Your task to perform on an android device: open app "Facebook" (install if not already installed) Image 0: 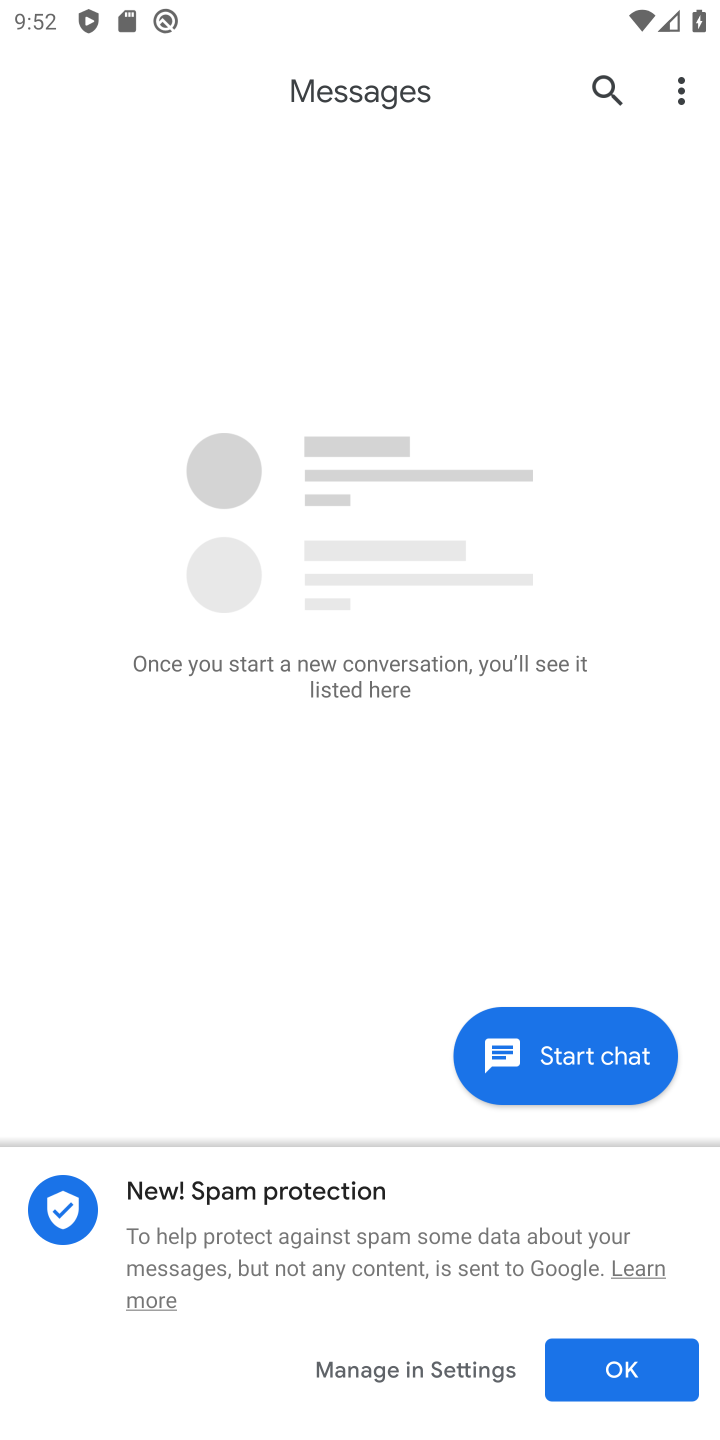
Step 0: press home button
Your task to perform on an android device: open app "Facebook" (install if not already installed) Image 1: 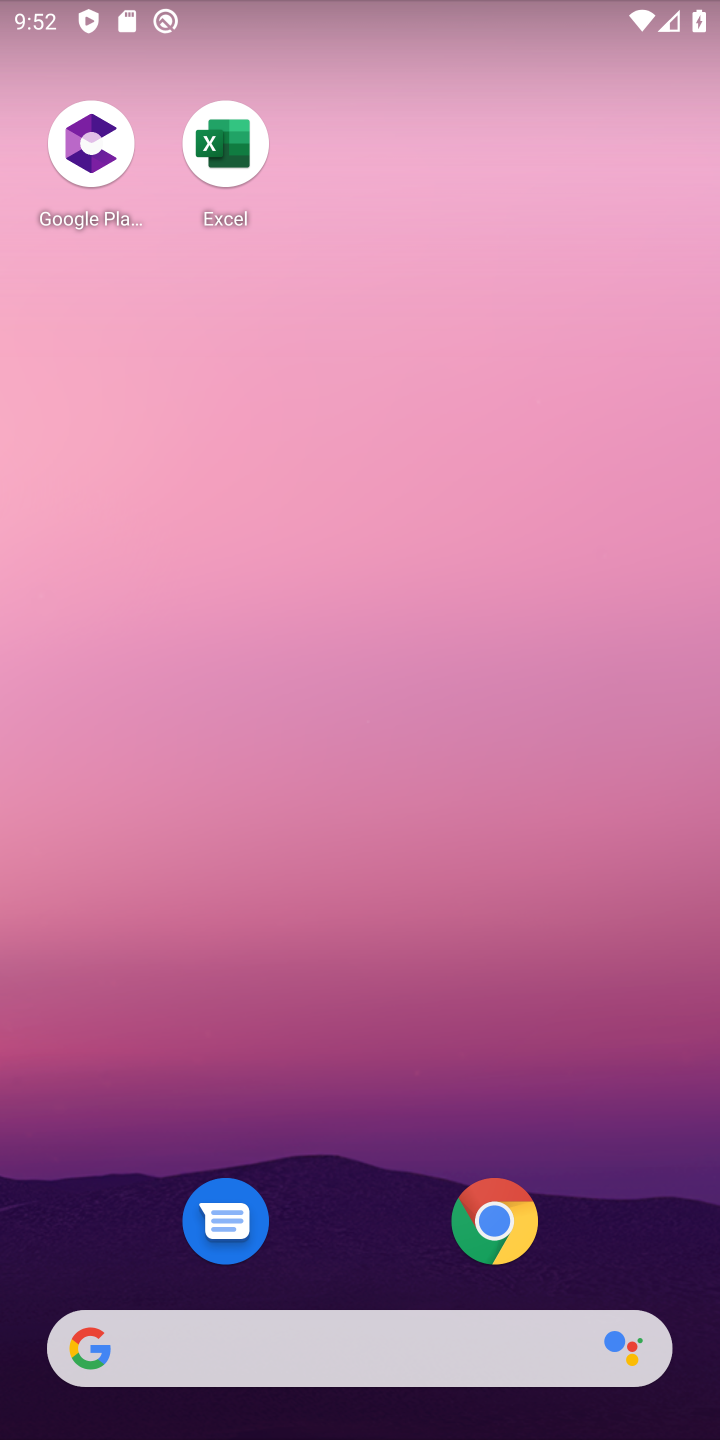
Step 1: drag from (338, 1141) to (310, 547)
Your task to perform on an android device: open app "Facebook" (install if not already installed) Image 2: 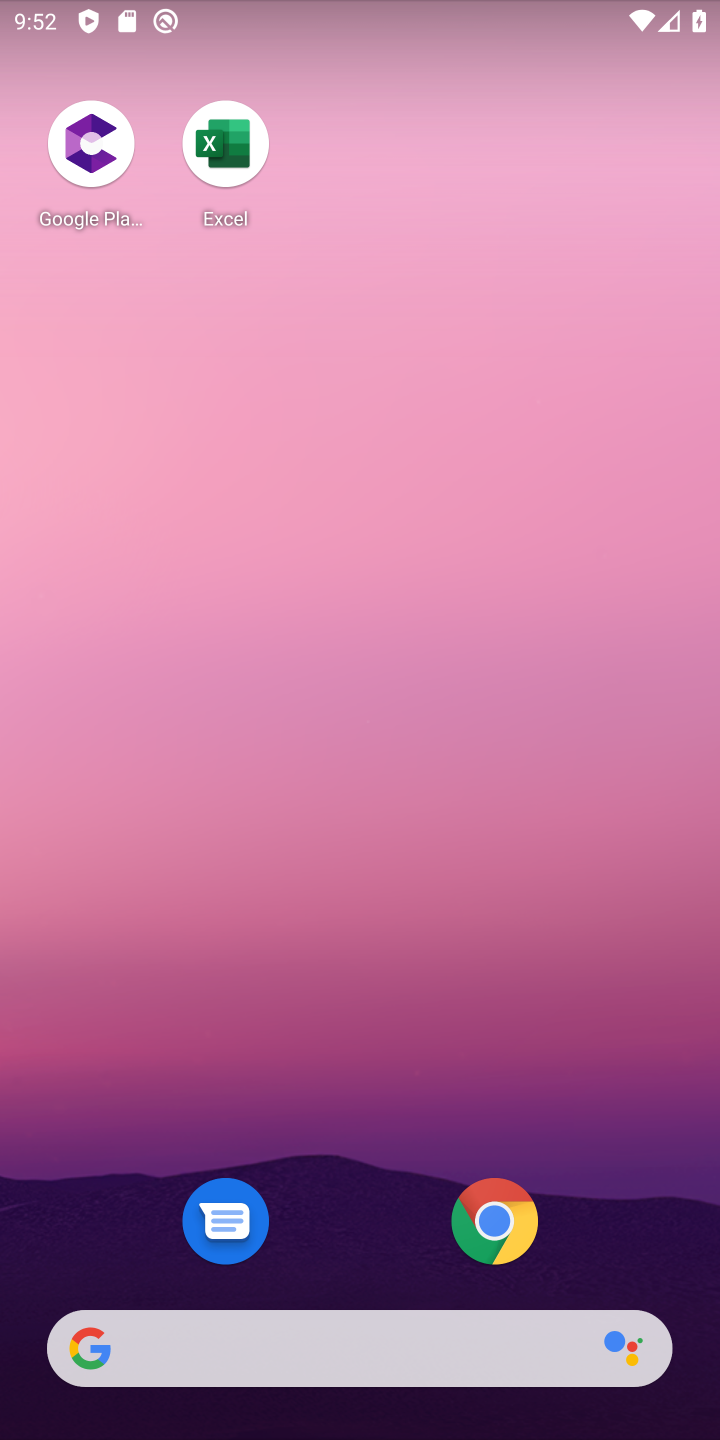
Step 2: drag from (310, 736) to (310, 547)
Your task to perform on an android device: open app "Facebook" (install if not already installed) Image 3: 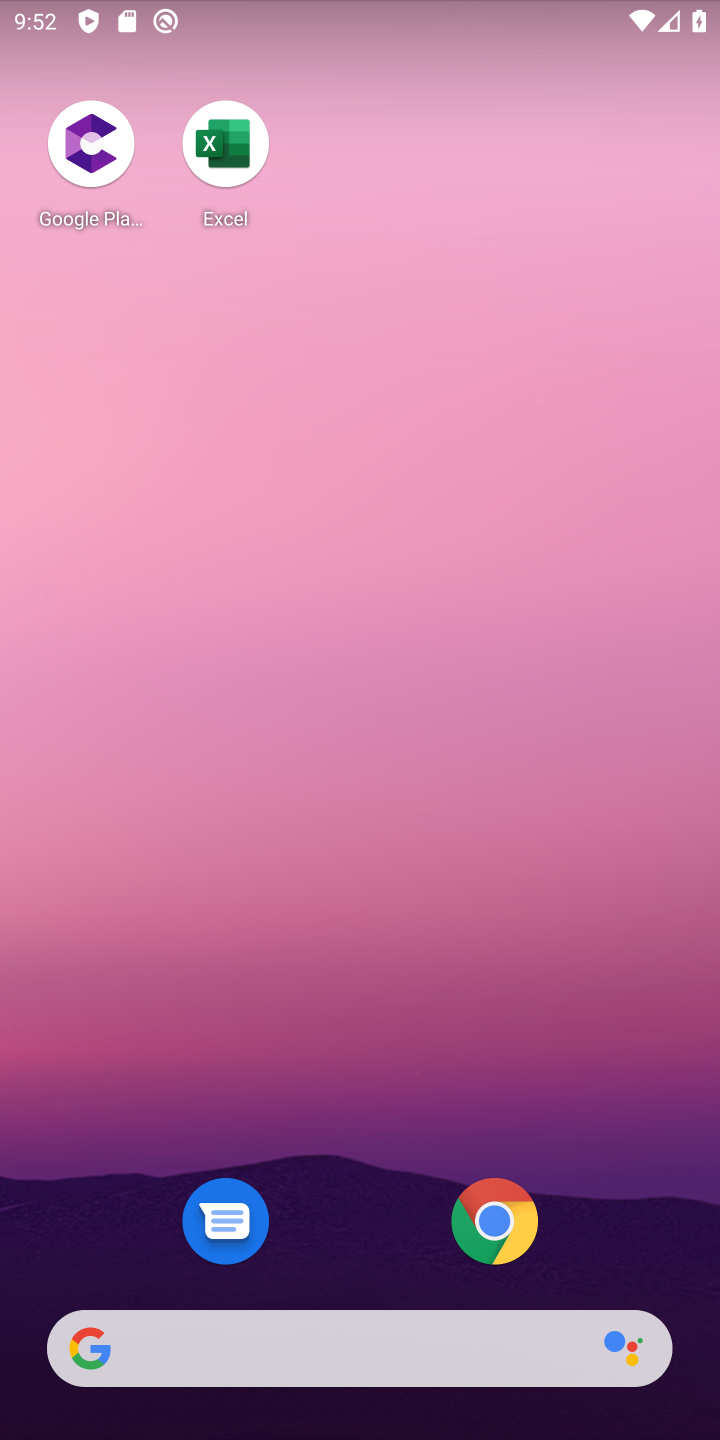
Step 3: drag from (383, 1303) to (378, 444)
Your task to perform on an android device: open app "Facebook" (install if not already installed) Image 4: 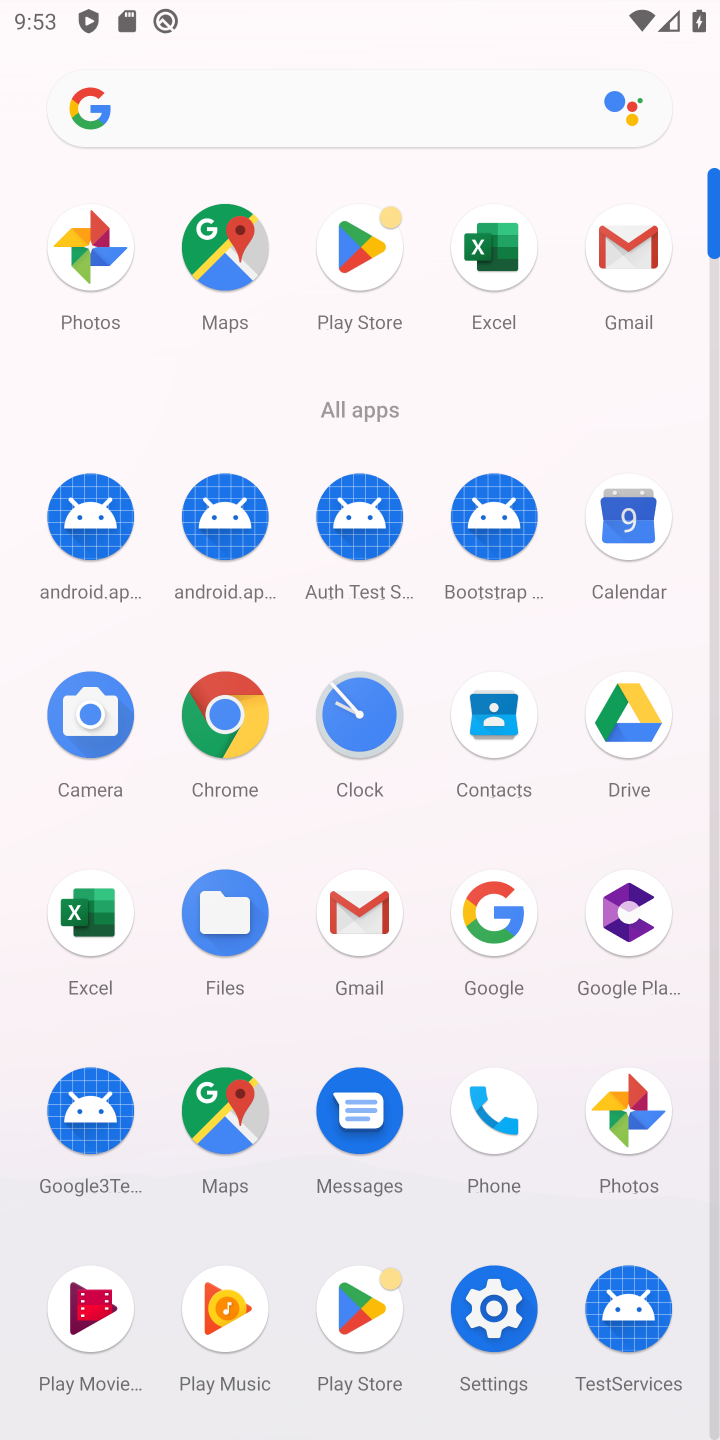
Step 4: click (360, 1317)
Your task to perform on an android device: open app "Facebook" (install if not already installed) Image 5: 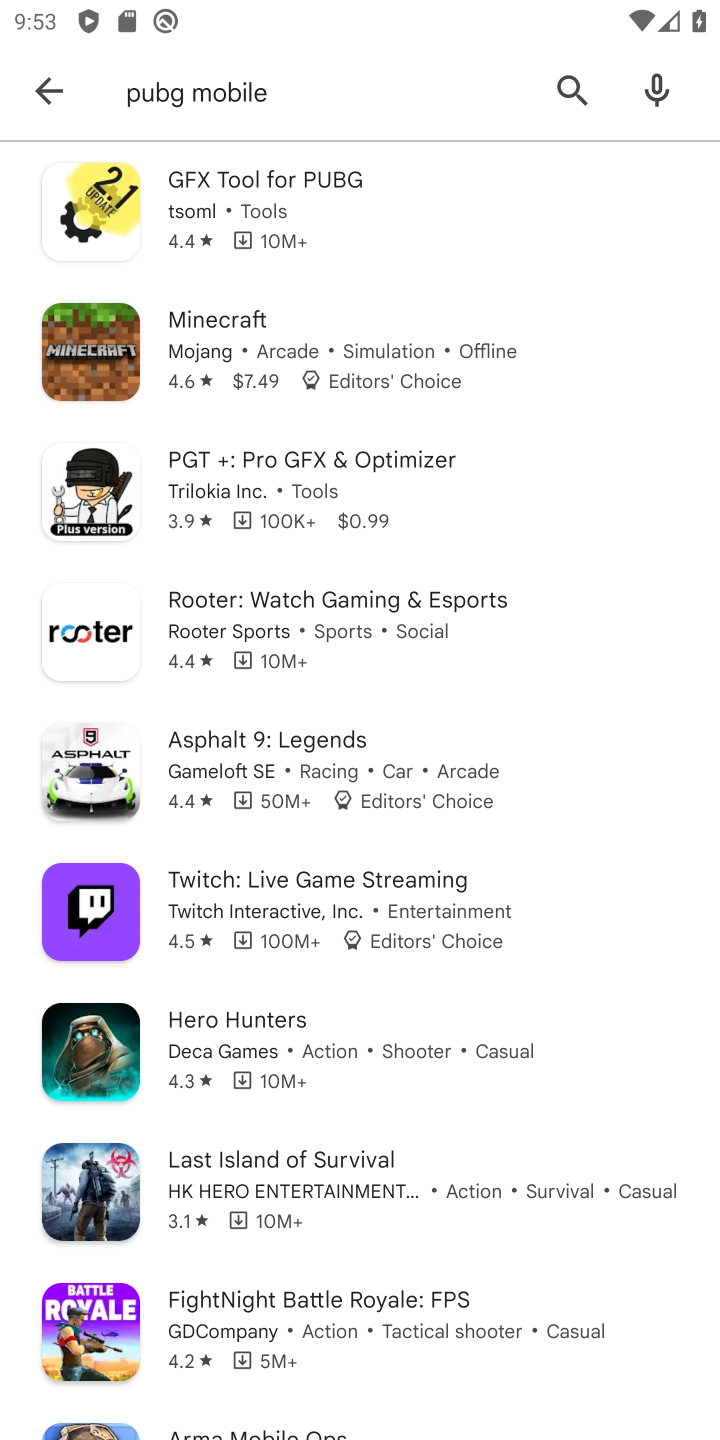
Step 5: click (586, 93)
Your task to perform on an android device: open app "Facebook" (install if not already installed) Image 6: 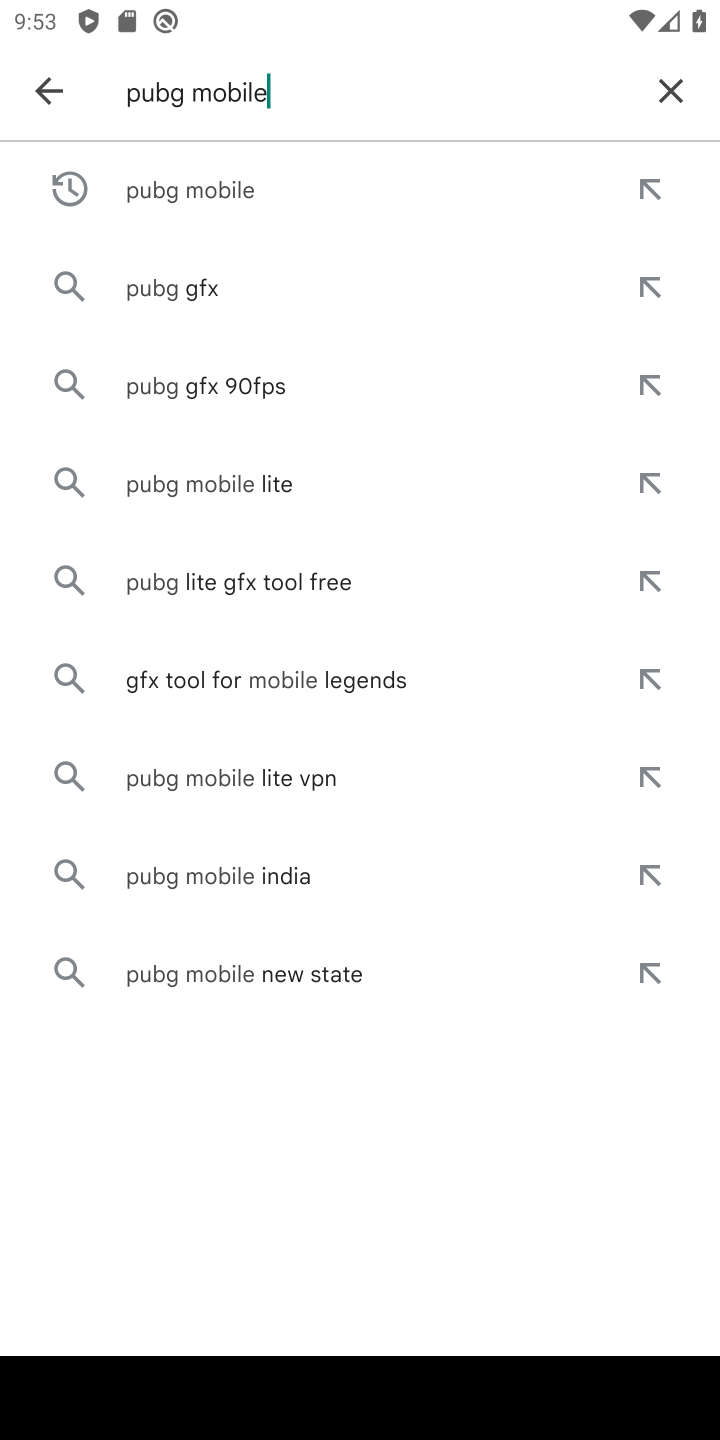
Step 6: click (682, 91)
Your task to perform on an android device: open app "Facebook" (install if not already installed) Image 7: 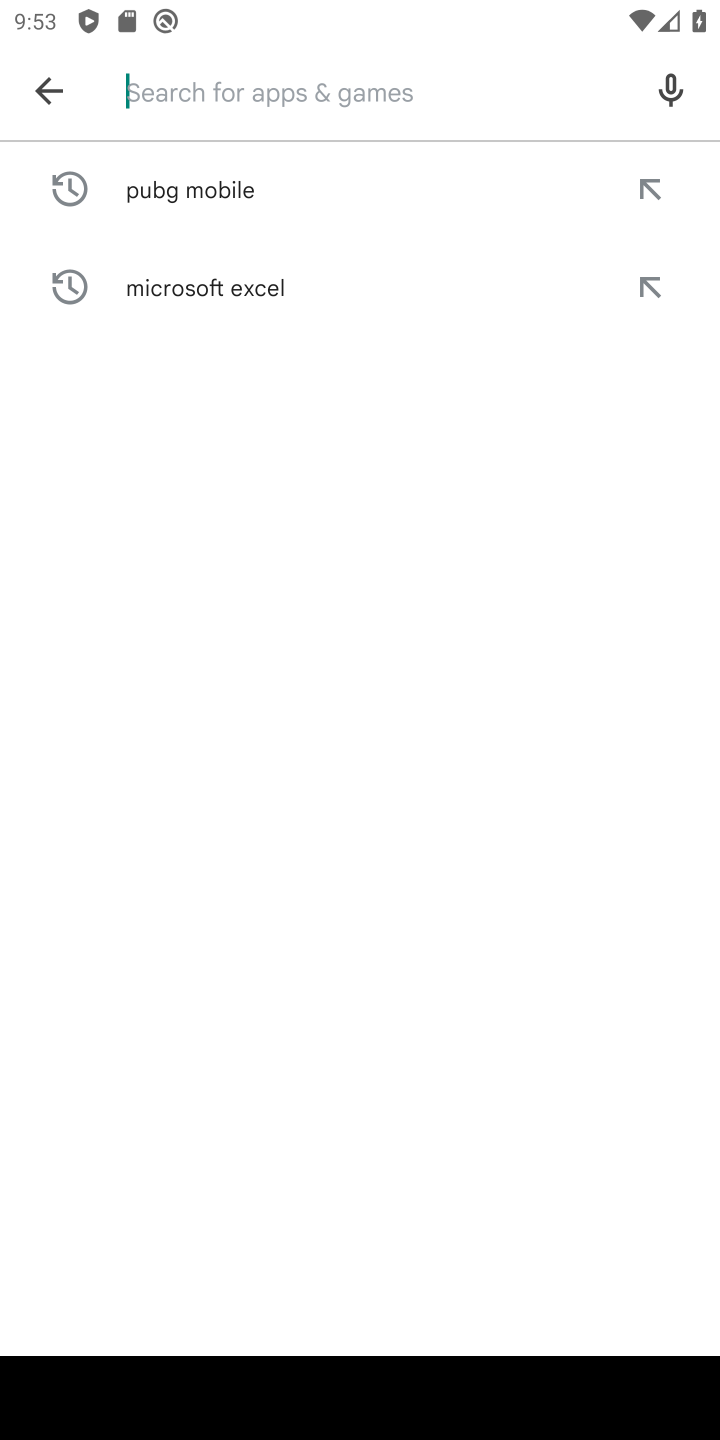
Step 7: click (202, 98)
Your task to perform on an android device: open app "Facebook" (install if not already installed) Image 8: 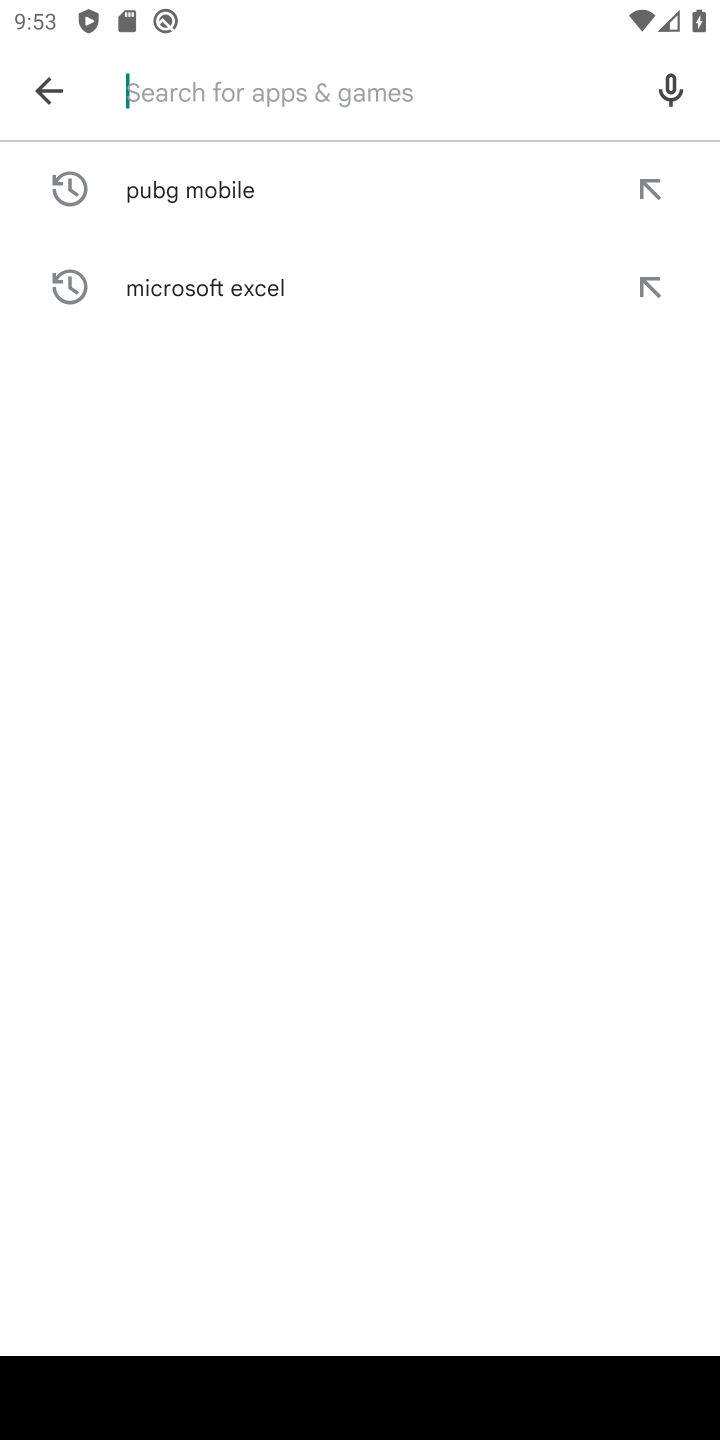
Step 8: click (150, 79)
Your task to perform on an android device: open app "Facebook" (install if not already installed) Image 9: 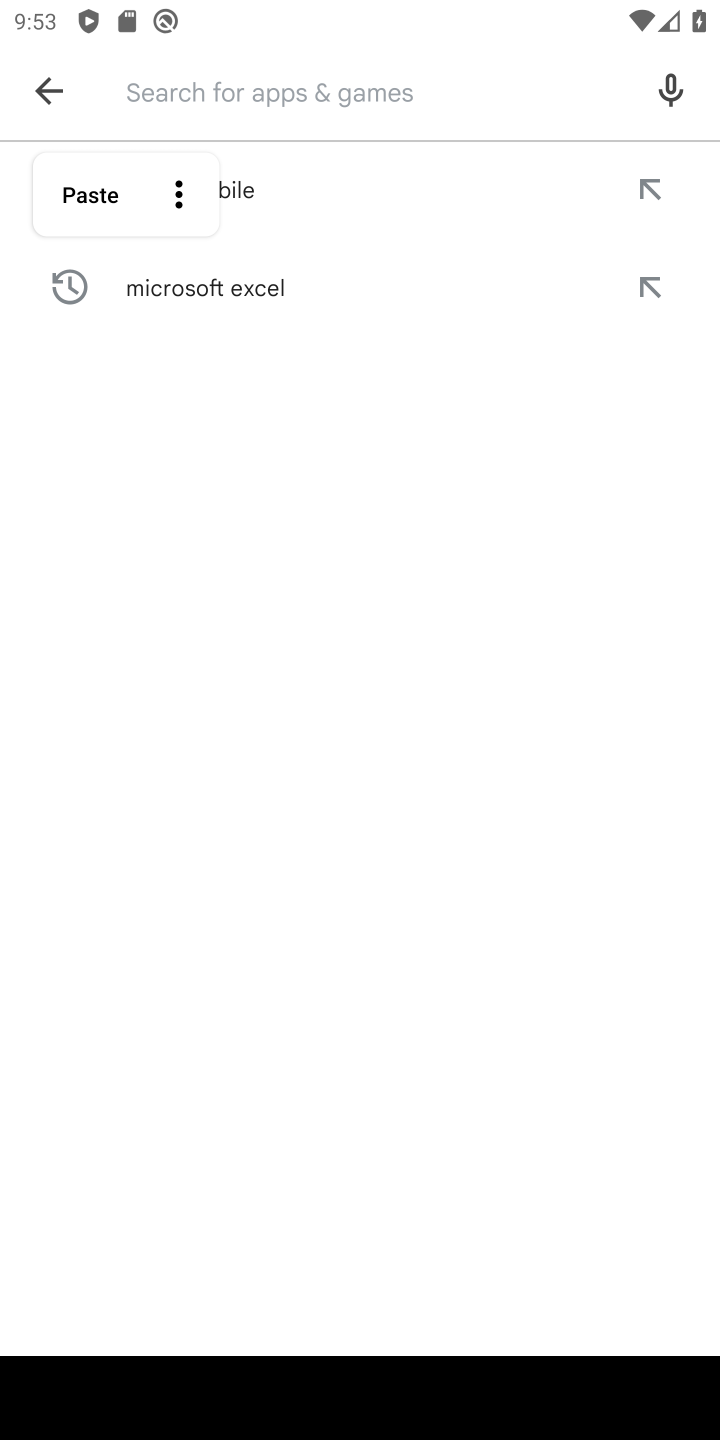
Step 9: type "Facebook"
Your task to perform on an android device: open app "Facebook" (install if not already installed) Image 10: 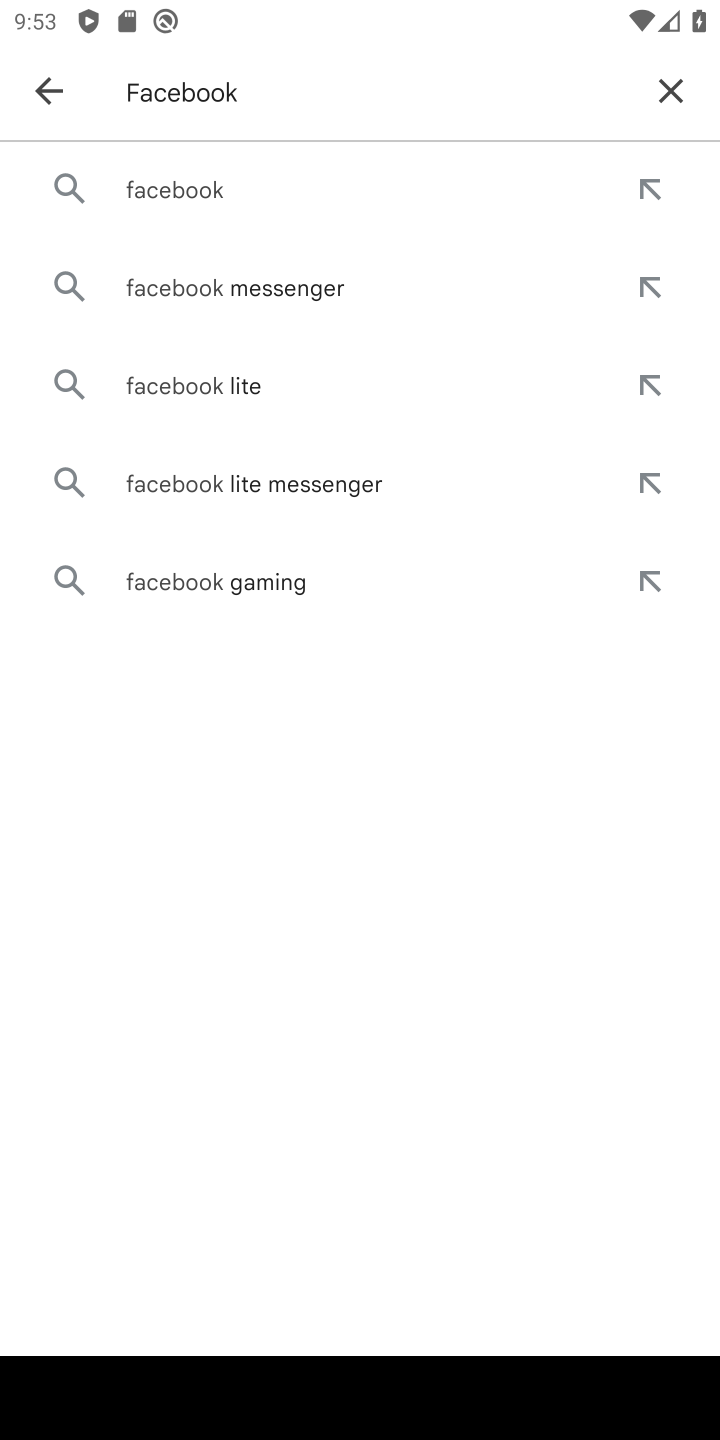
Step 10: click (169, 182)
Your task to perform on an android device: open app "Facebook" (install if not already installed) Image 11: 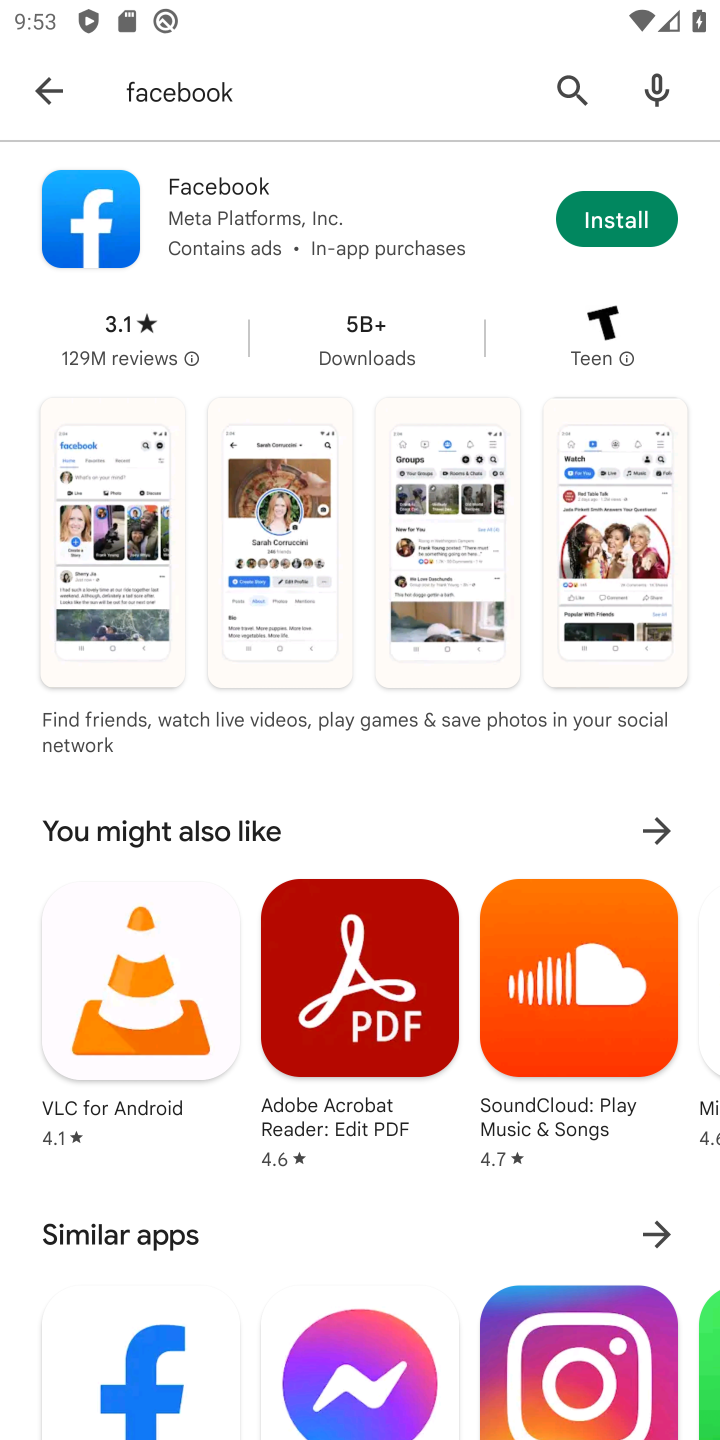
Step 11: click (590, 227)
Your task to perform on an android device: open app "Facebook" (install if not already installed) Image 12: 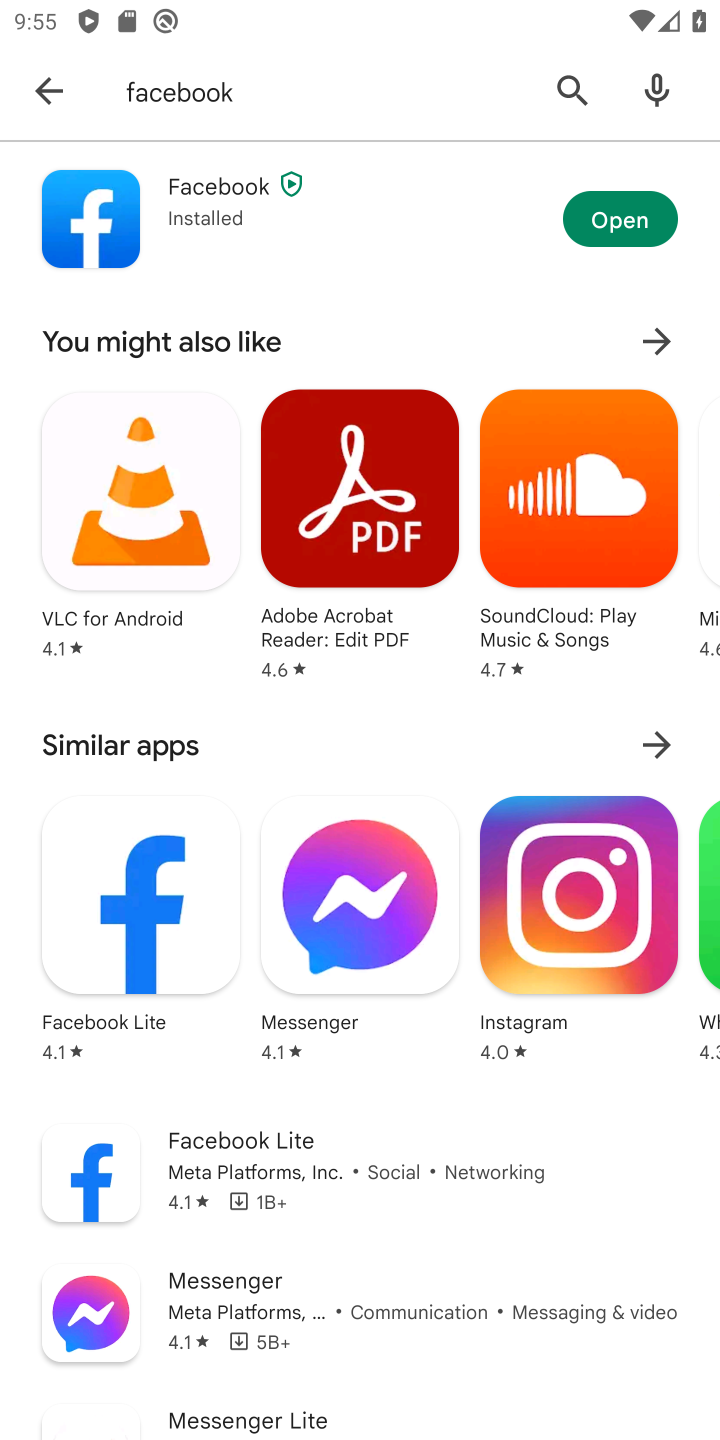
Step 12: click (628, 231)
Your task to perform on an android device: open app "Facebook" (install if not already installed) Image 13: 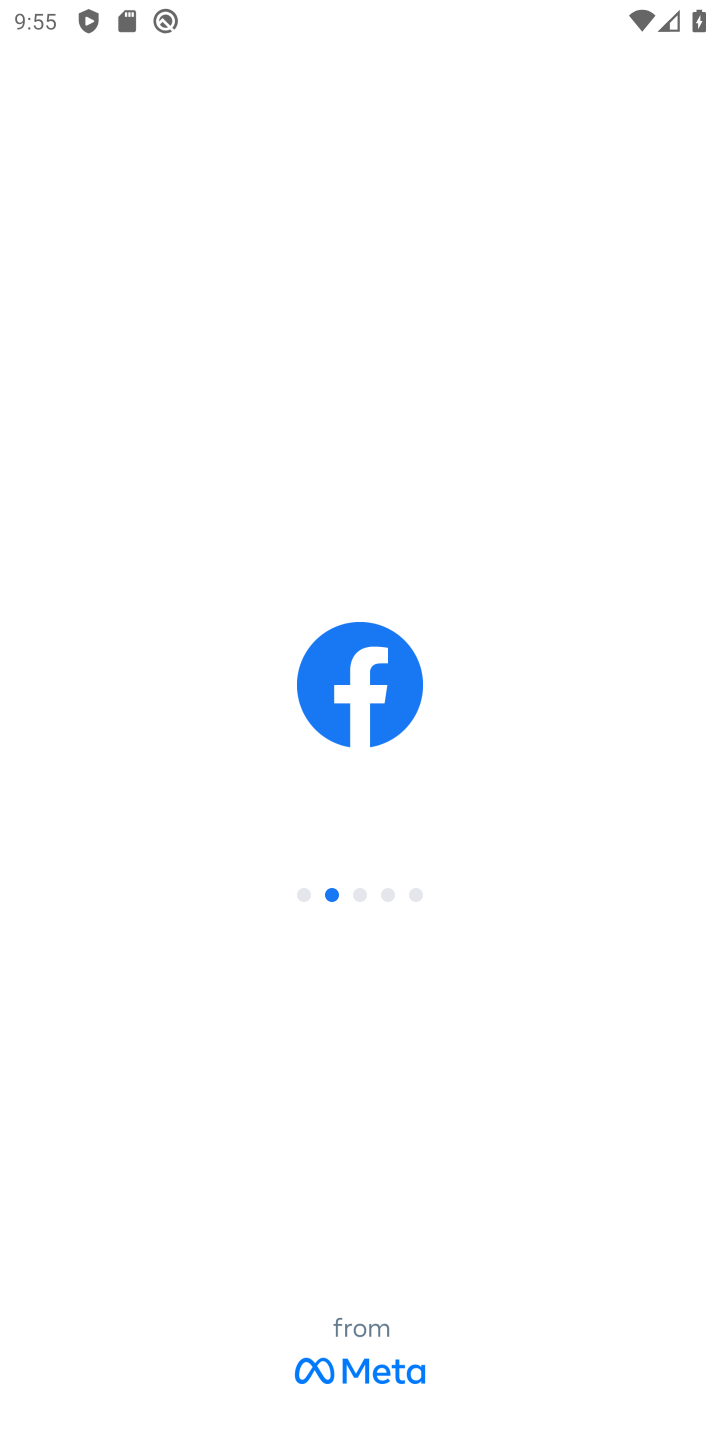
Step 13: task complete